Your task to perform on an android device: toggle translation in the chrome app Image 0: 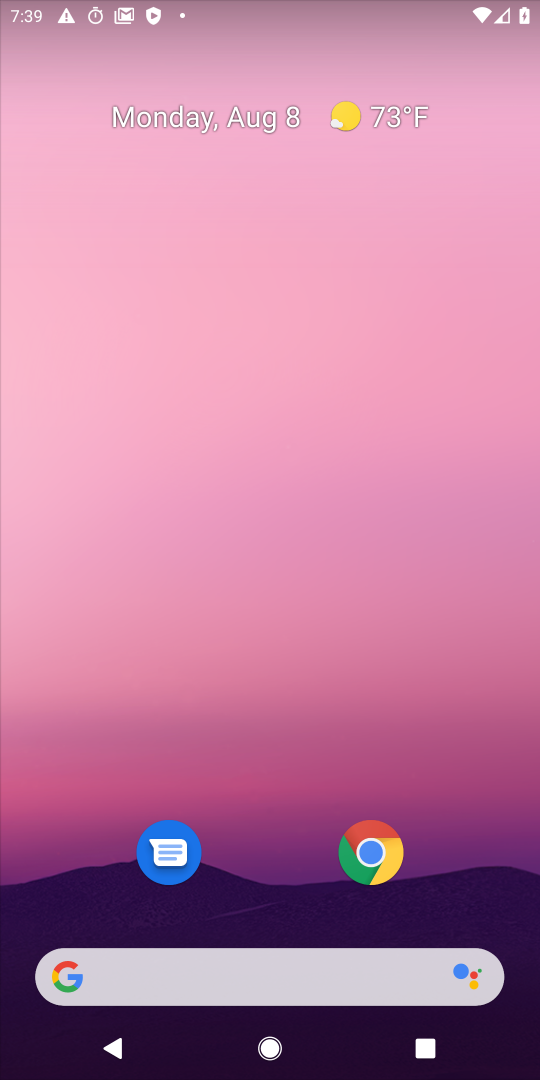
Step 0: click (345, 866)
Your task to perform on an android device: toggle translation in the chrome app Image 1: 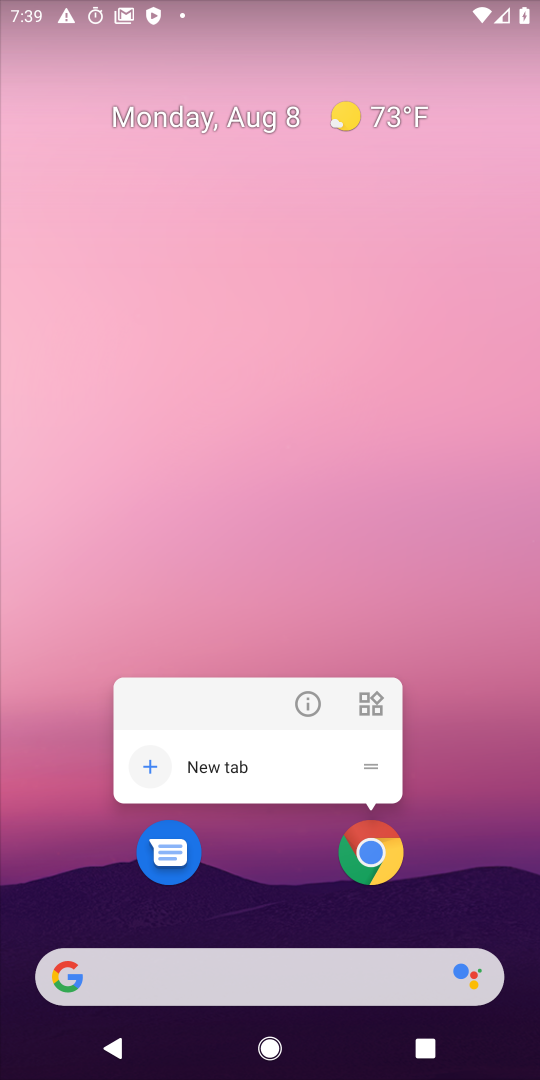
Step 1: click (341, 856)
Your task to perform on an android device: toggle translation in the chrome app Image 2: 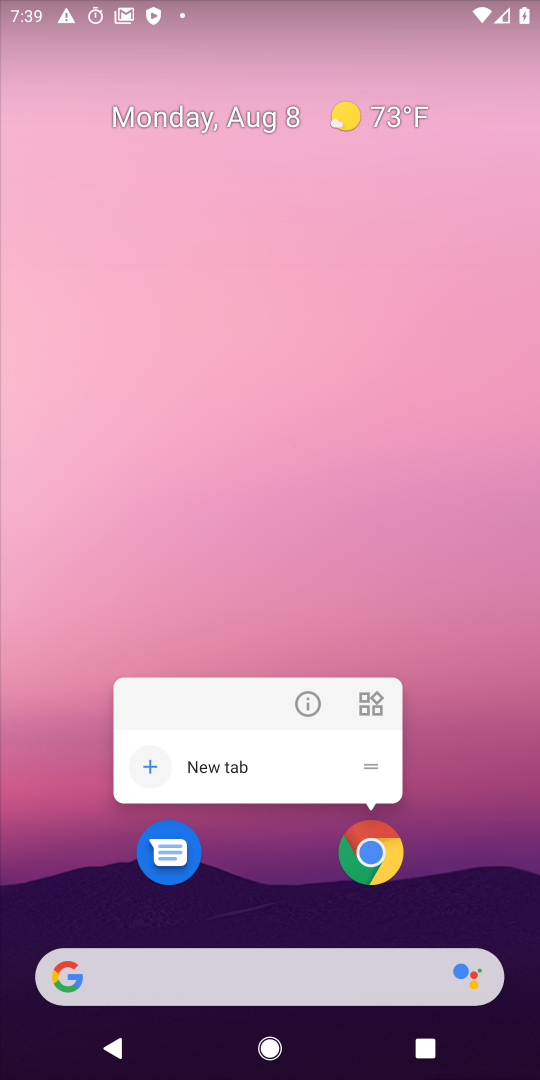
Step 2: click (380, 851)
Your task to perform on an android device: toggle translation in the chrome app Image 3: 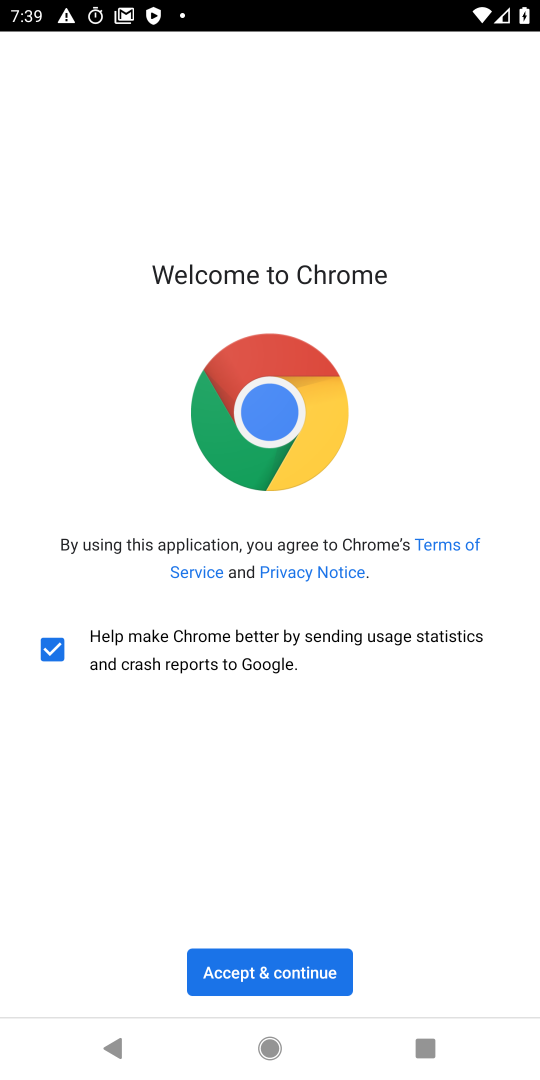
Step 3: click (257, 966)
Your task to perform on an android device: toggle translation in the chrome app Image 4: 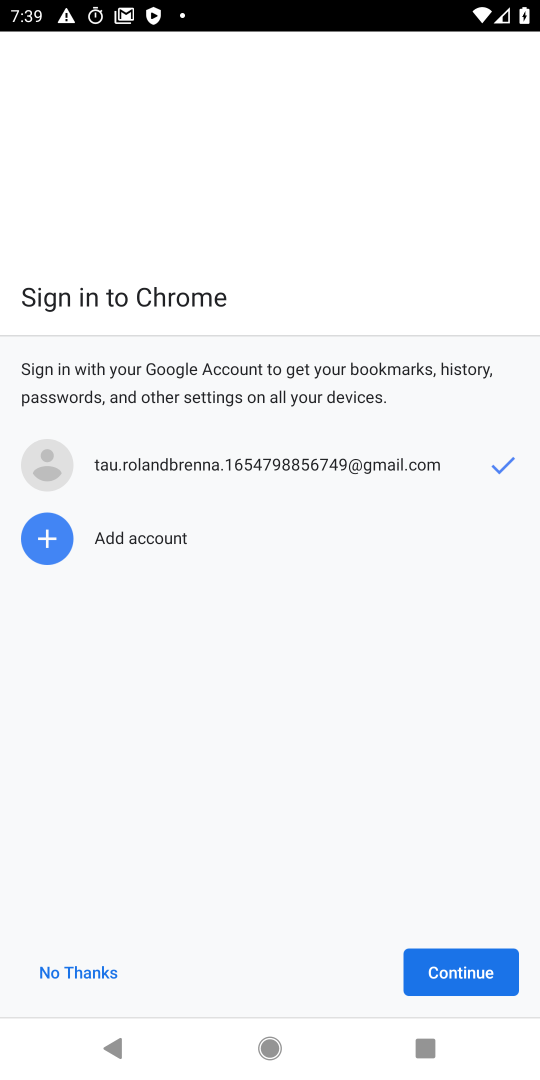
Step 4: click (91, 977)
Your task to perform on an android device: toggle translation in the chrome app Image 5: 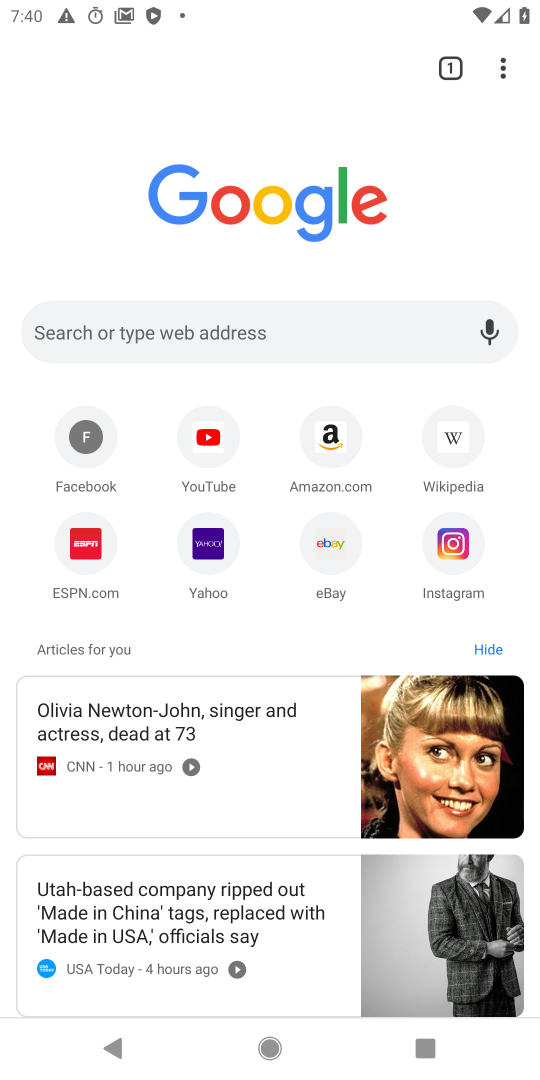
Step 5: click (500, 69)
Your task to perform on an android device: toggle translation in the chrome app Image 6: 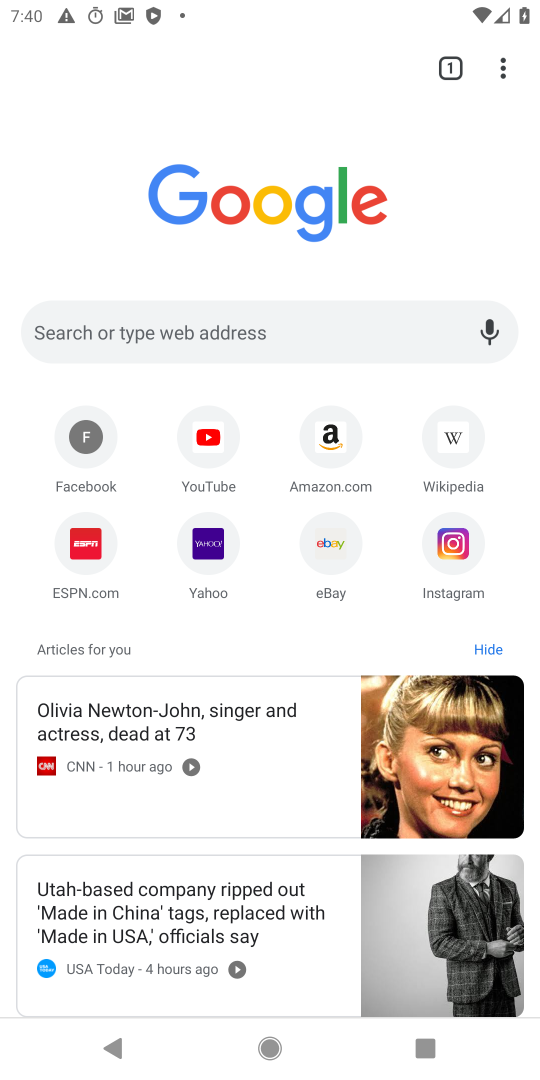
Step 6: click (500, 69)
Your task to perform on an android device: toggle translation in the chrome app Image 7: 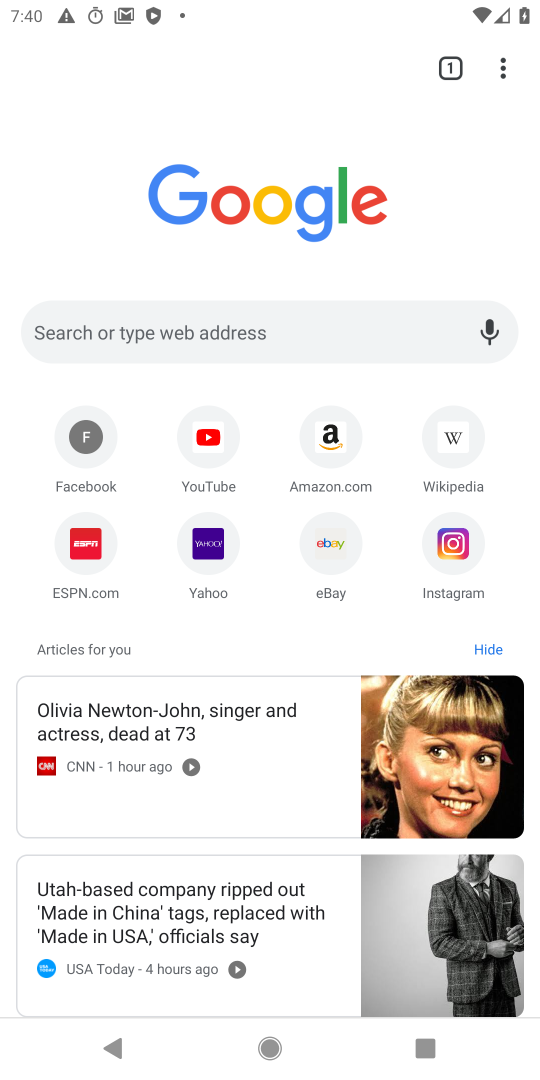
Step 7: click (503, 75)
Your task to perform on an android device: toggle translation in the chrome app Image 8: 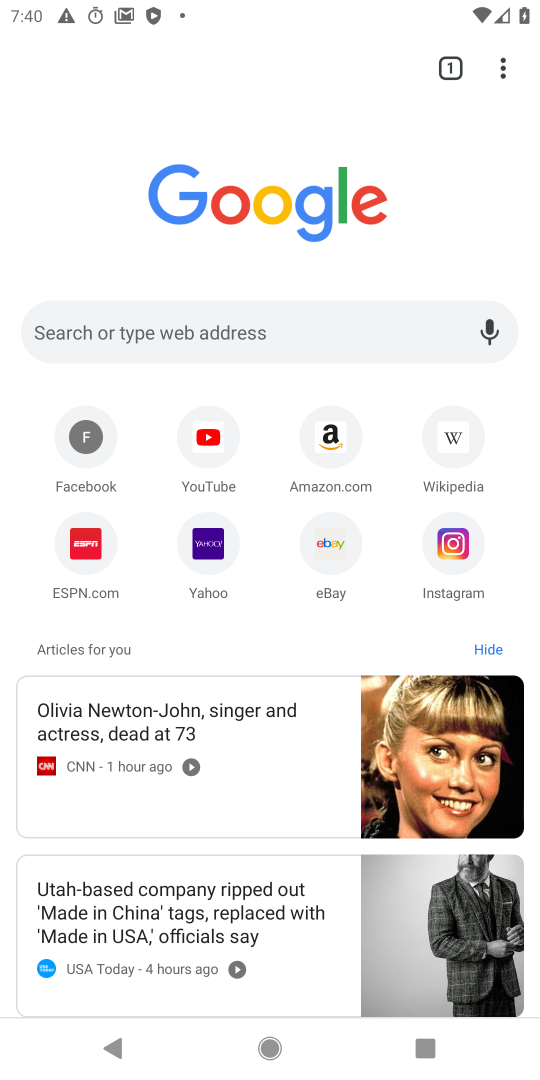
Step 8: click (501, 69)
Your task to perform on an android device: toggle translation in the chrome app Image 9: 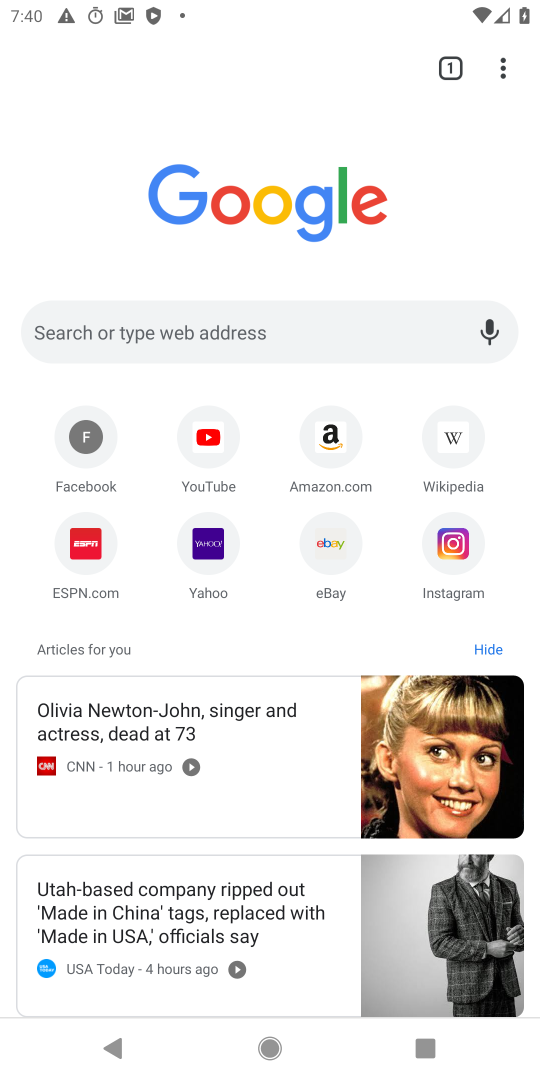
Step 9: click (503, 71)
Your task to perform on an android device: toggle translation in the chrome app Image 10: 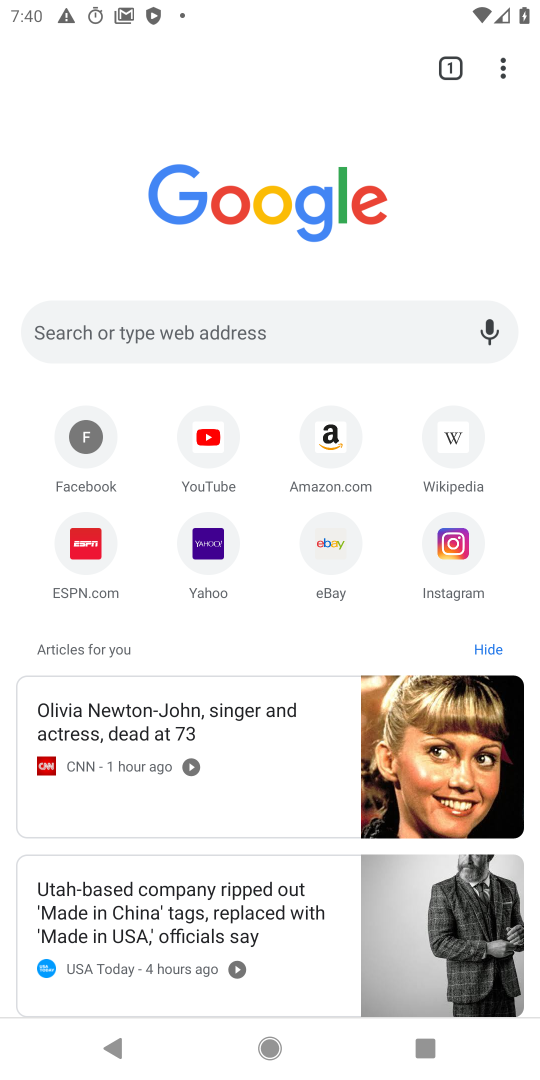
Step 10: click (496, 69)
Your task to perform on an android device: toggle translation in the chrome app Image 11: 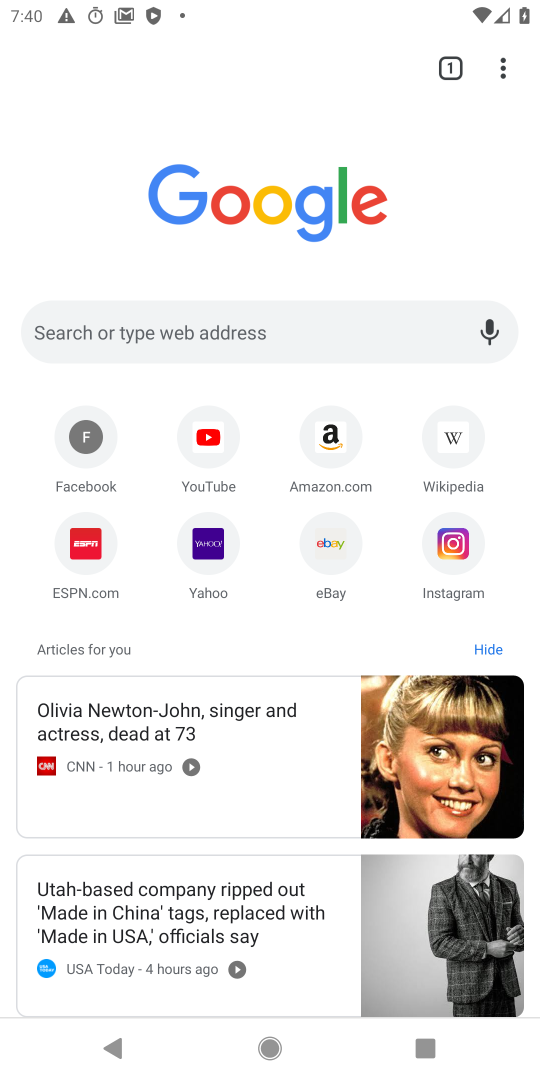
Step 11: click (497, 70)
Your task to perform on an android device: toggle translation in the chrome app Image 12: 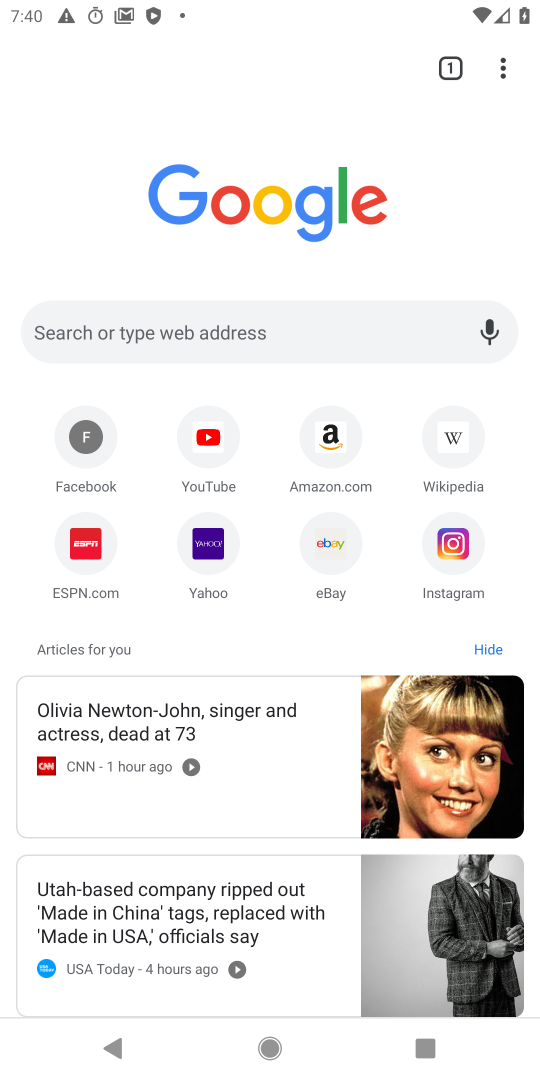
Step 12: task complete